Your task to perform on an android device: Do I have any events this weekend? Image 0: 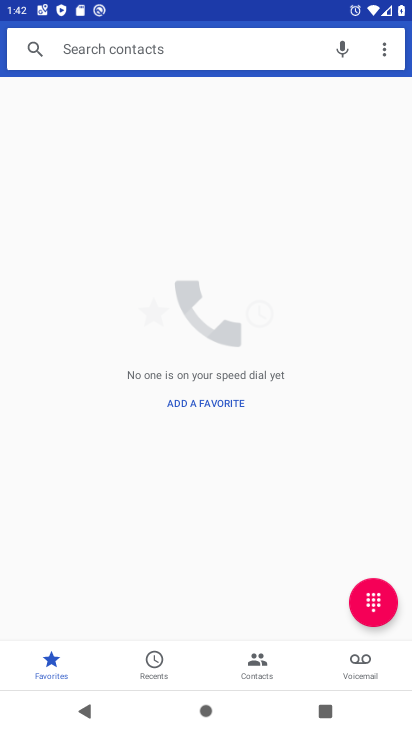
Step 0: press home button
Your task to perform on an android device: Do I have any events this weekend? Image 1: 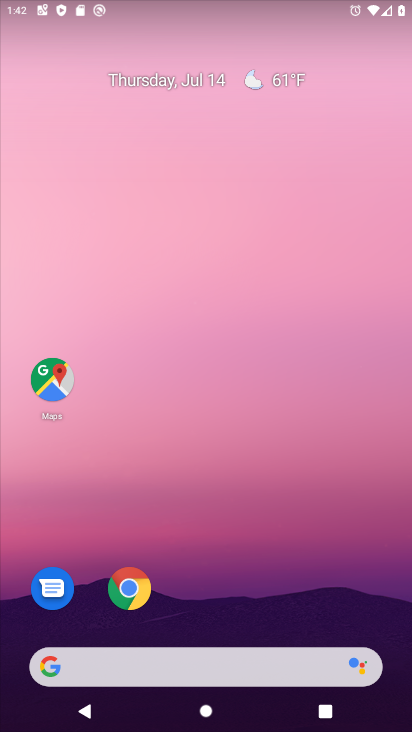
Step 1: drag from (219, 590) to (267, 111)
Your task to perform on an android device: Do I have any events this weekend? Image 2: 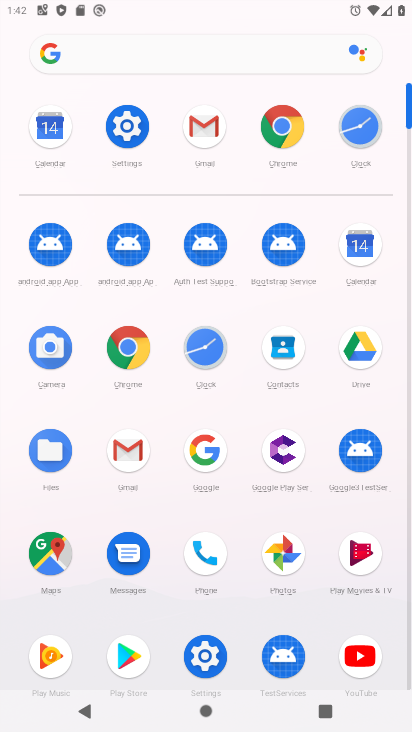
Step 2: click (362, 241)
Your task to perform on an android device: Do I have any events this weekend? Image 3: 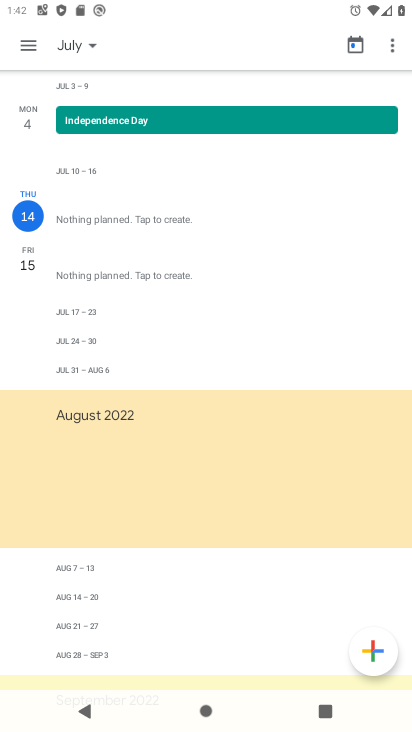
Step 3: click (24, 45)
Your task to perform on an android device: Do I have any events this weekend? Image 4: 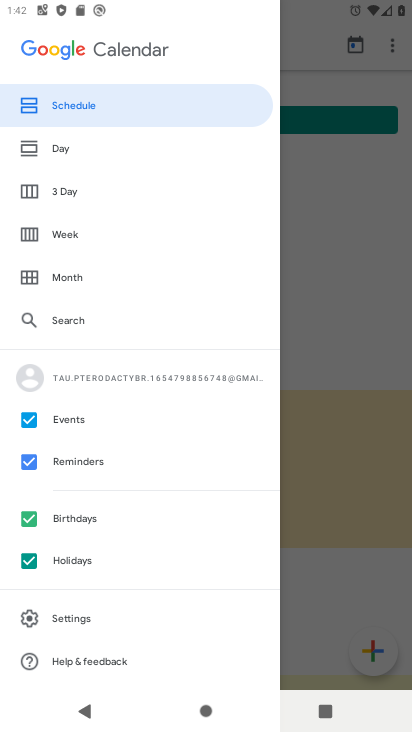
Step 4: click (65, 216)
Your task to perform on an android device: Do I have any events this weekend? Image 5: 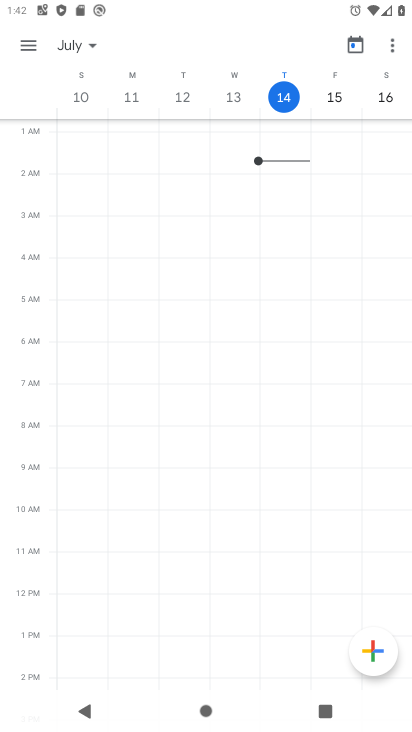
Step 5: task complete